Your task to perform on an android device: change the clock display to analog Image 0: 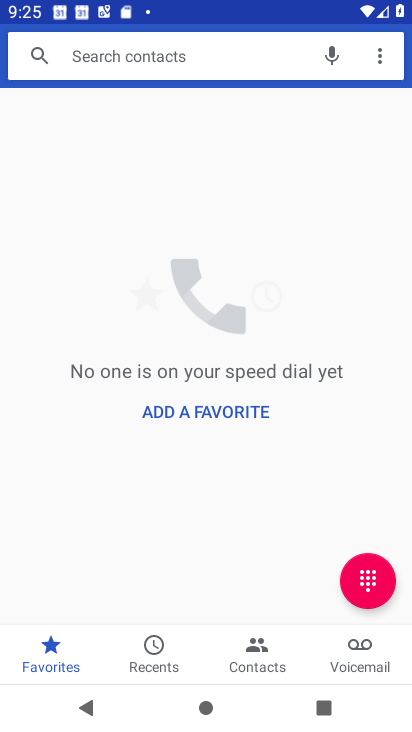
Step 0: click (293, 25)
Your task to perform on an android device: change the clock display to analog Image 1: 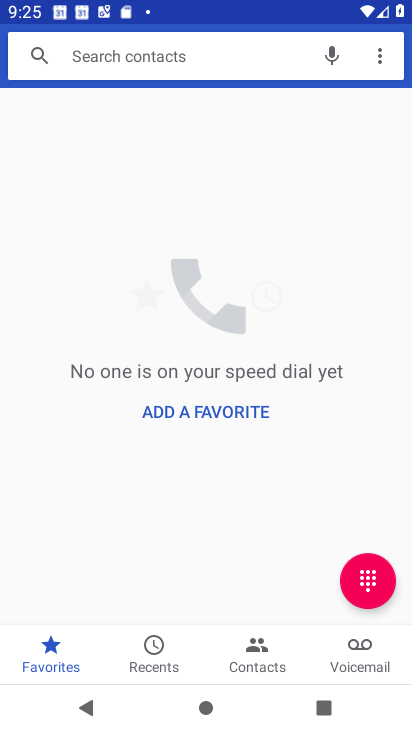
Step 1: press home button
Your task to perform on an android device: change the clock display to analog Image 2: 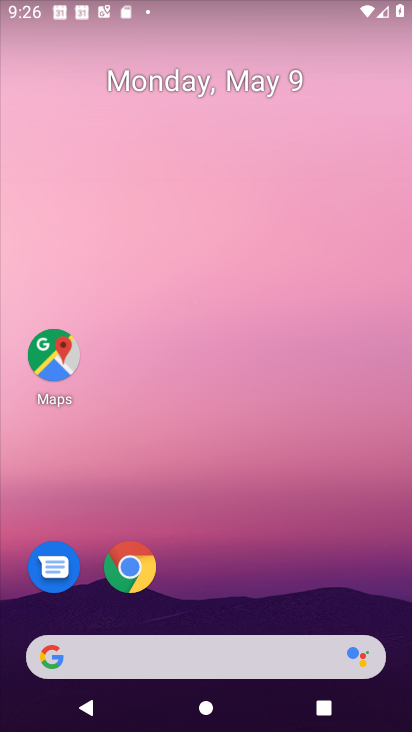
Step 2: drag from (217, 605) to (261, 268)
Your task to perform on an android device: change the clock display to analog Image 3: 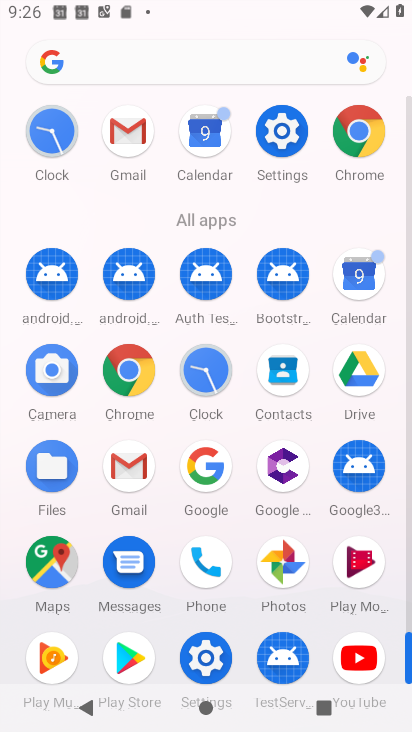
Step 3: click (201, 349)
Your task to perform on an android device: change the clock display to analog Image 4: 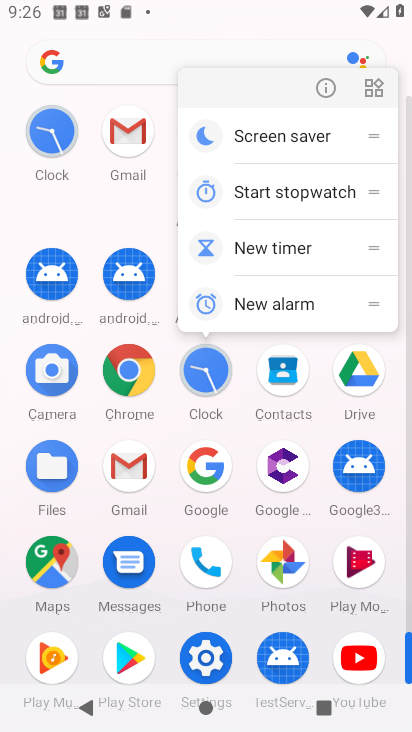
Step 4: click (320, 92)
Your task to perform on an android device: change the clock display to analog Image 5: 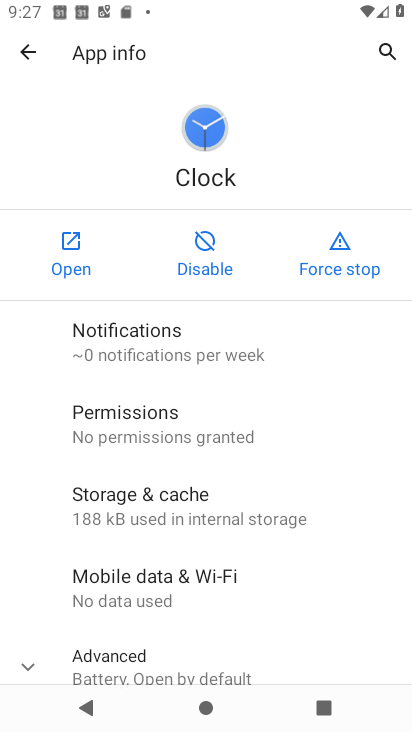
Step 5: click (50, 289)
Your task to perform on an android device: change the clock display to analog Image 6: 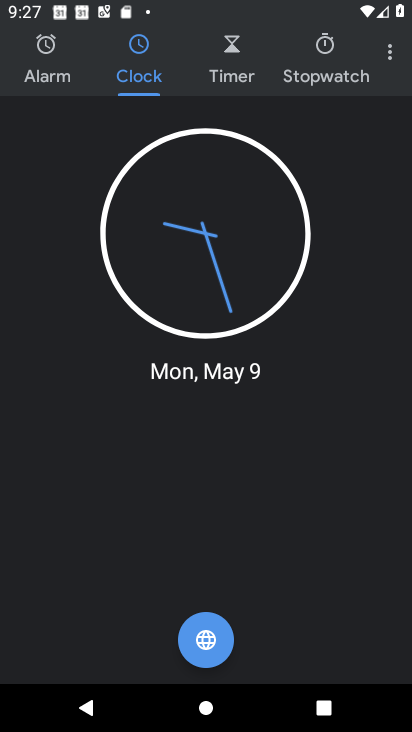
Step 6: click (378, 62)
Your task to perform on an android device: change the clock display to analog Image 7: 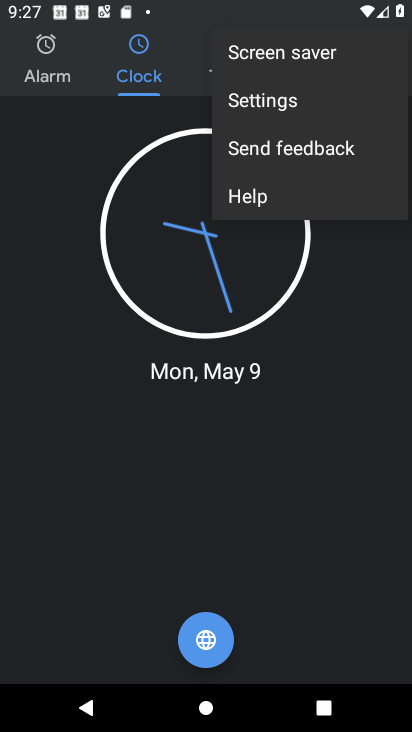
Step 7: click (235, 96)
Your task to perform on an android device: change the clock display to analog Image 8: 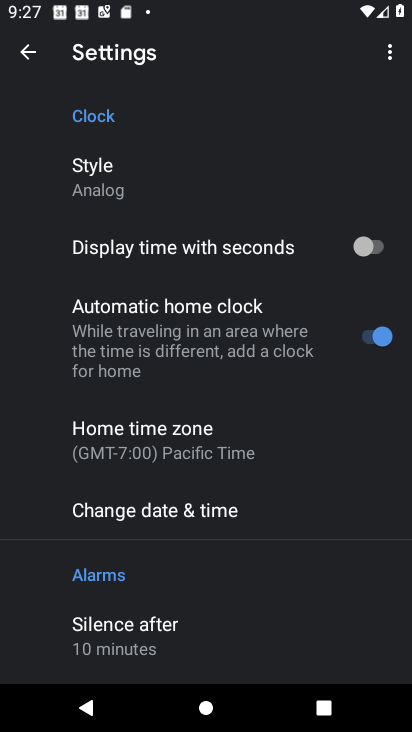
Step 8: drag from (222, 533) to (328, 63)
Your task to perform on an android device: change the clock display to analog Image 9: 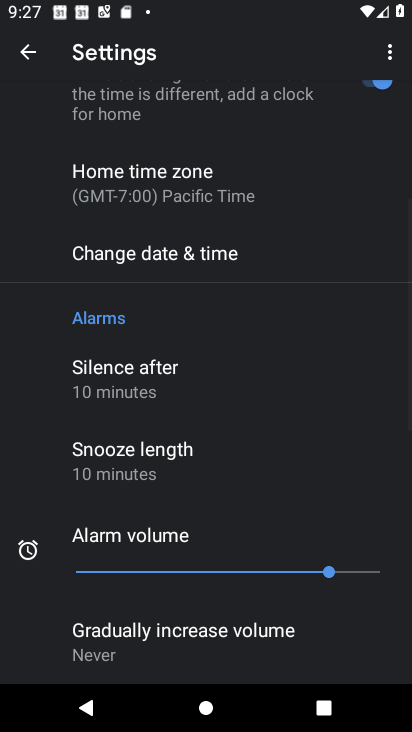
Step 9: drag from (200, 157) to (171, 681)
Your task to perform on an android device: change the clock display to analog Image 10: 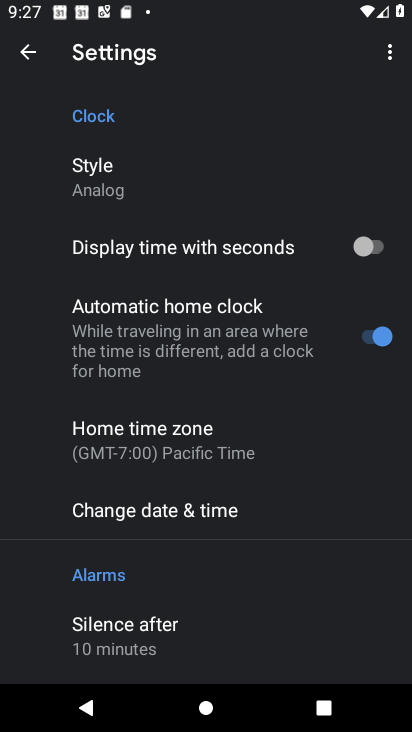
Step 10: click (128, 177)
Your task to perform on an android device: change the clock display to analog Image 11: 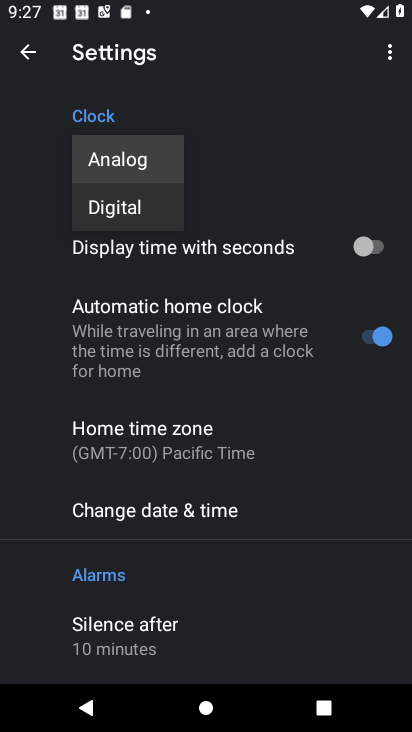
Step 11: click (126, 179)
Your task to perform on an android device: change the clock display to analog Image 12: 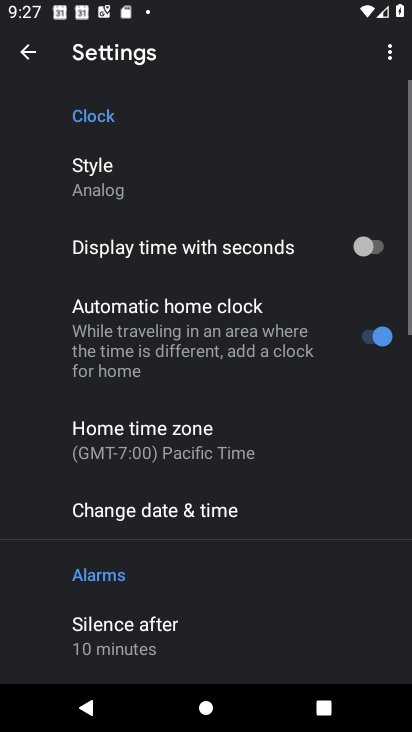
Step 12: task complete